Your task to perform on an android device: allow cookies in the chrome app Image 0: 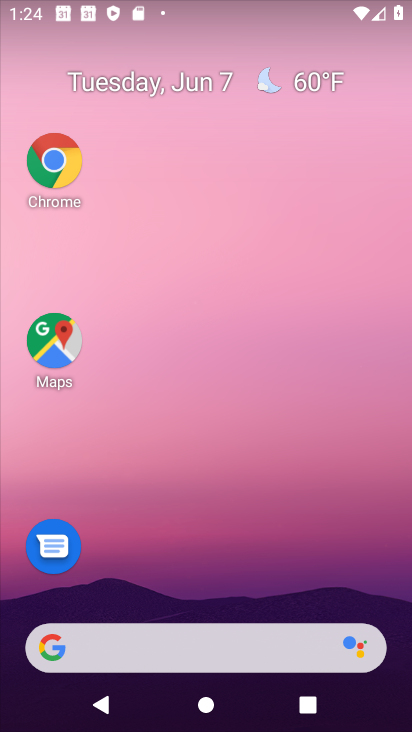
Step 0: drag from (164, 610) to (213, 48)
Your task to perform on an android device: allow cookies in the chrome app Image 1: 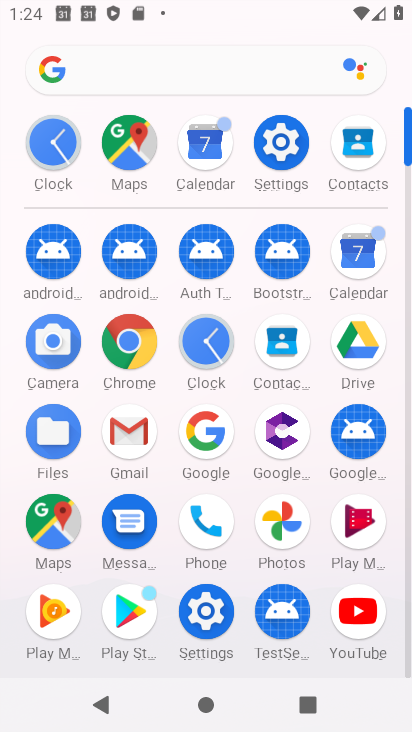
Step 1: click (124, 344)
Your task to perform on an android device: allow cookies in the chrome app Image 2: 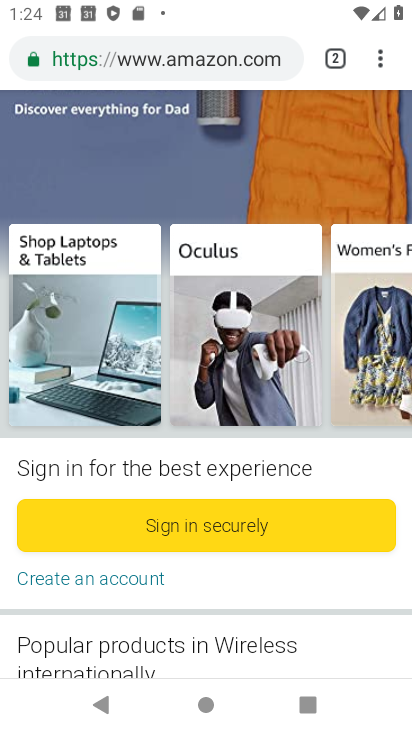
Step 2: drag from (379, 61) to (217, 576)
Your task to perform on an android device: allow cookies in the chrome app Image 3: 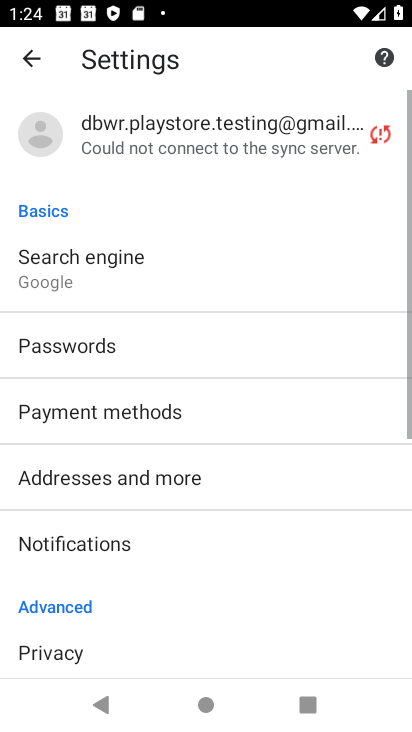
Step 3: drag from (214, 578) to (267, 205)
Your task to perform on an android device: allow cookies in the chrome app Image 4: 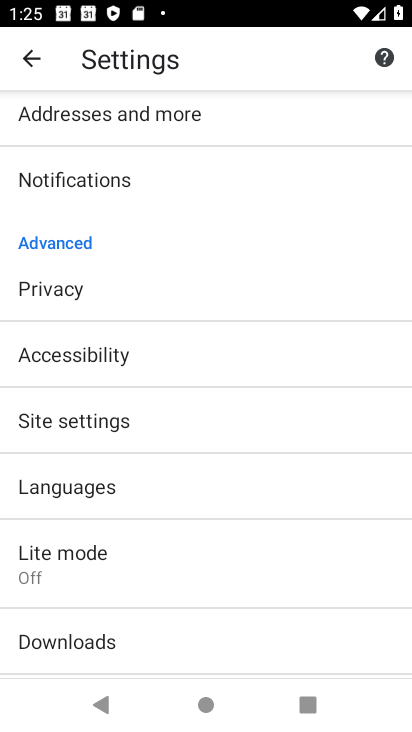
Step 4: click (183, 417)
Your task to perform on an android device: allow cookies in the chrome app Image 5: 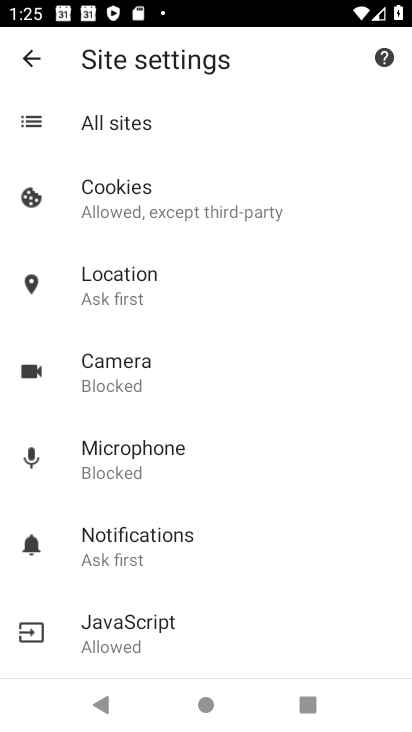
Step 5: click (135, 193)
Your task to perform on an android device: allow cookies in the chrome app Image 6: 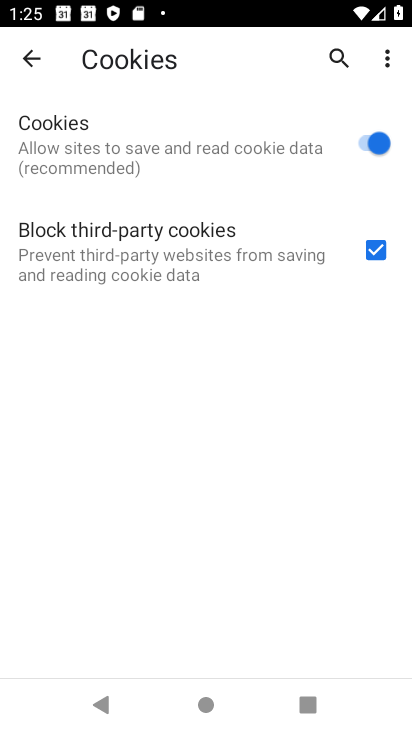
Step 6: task complete